Your task to perform on an android device: Search for vegetarian restaurants on Maps Image 0: 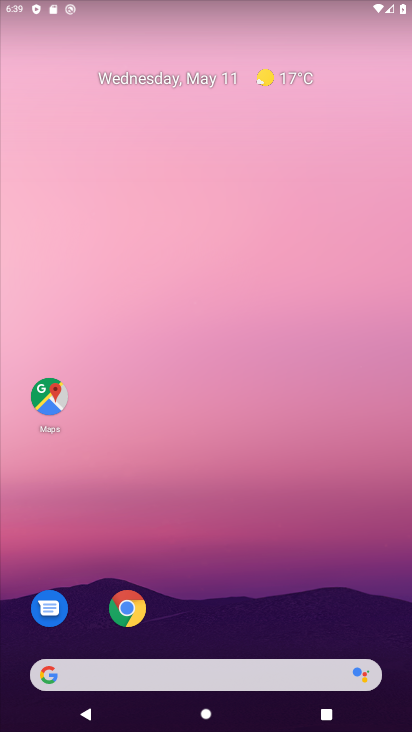
Step 0: click (53, 401)
Your task to perform on an android device: Search for vegetarian restaurants on Maps Image 1: 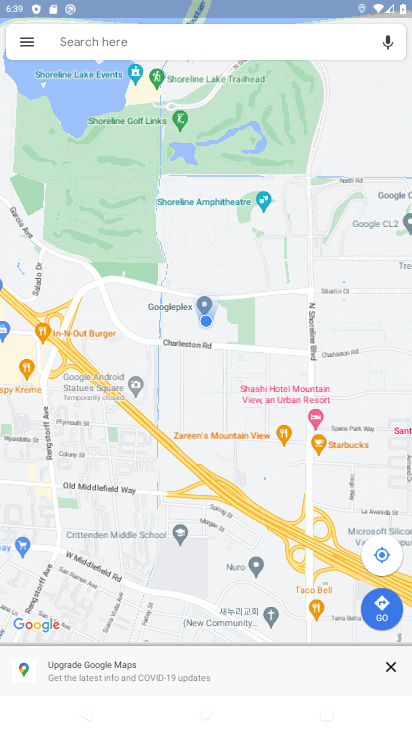
Step 1: click (211, 44)
Your task to perform on an android device: Search for vegetarian restaurants on Maps Image 2: 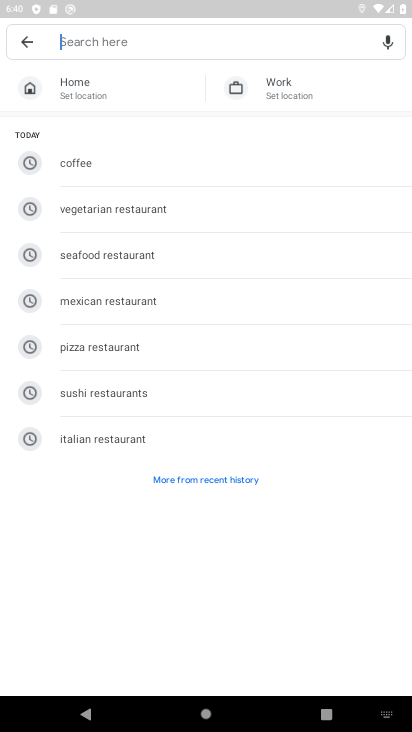
Step 2: click (196, 216)
Your task to perform on an android device: Search for vegetarian restaurants on Maps Image 3: 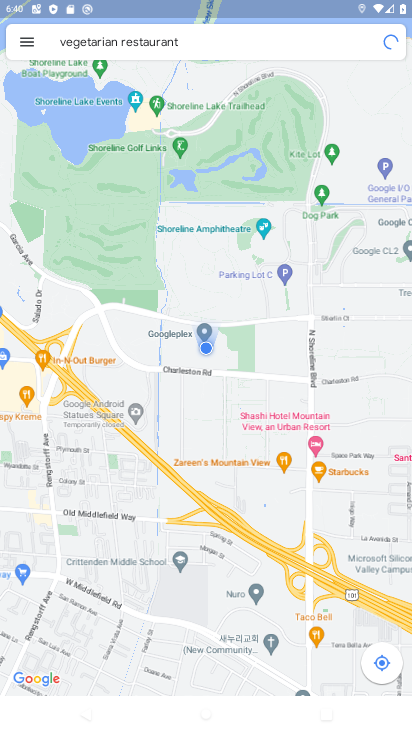
Step 3: task complete